Your task to perform on an android device: turn off priority inbox in the gmail app Image 0: 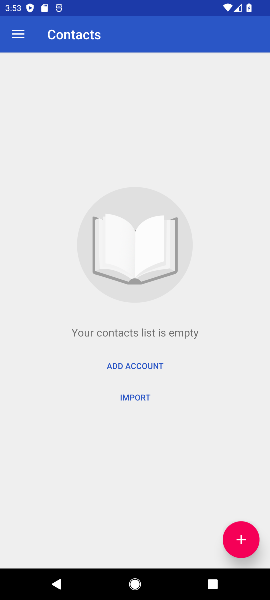
Step 0: press home button
Your task to perform on an android device: turn off priority inbox in the gmail app Image 1: 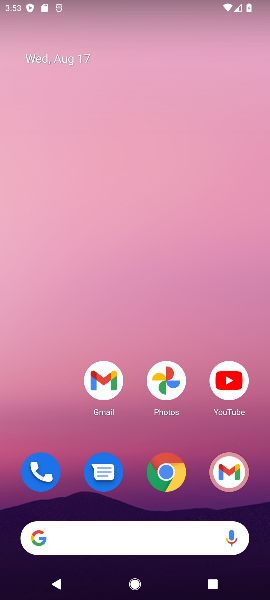
Step 1: click (231, 468)
Your task to perform on an android device: turn off priority inbox in the gmail app Image 2: 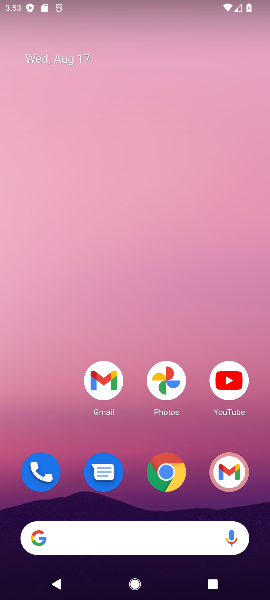
Step 2: click (106, 385)
Your task to perform on an android device: turn off priority inbox in the gmail app Image 3: 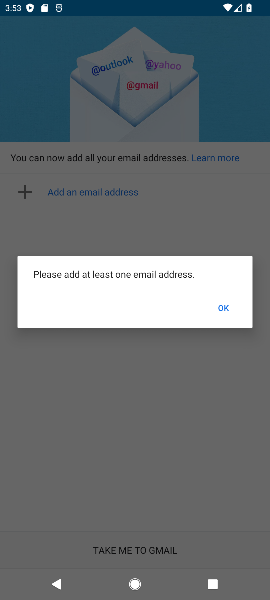
Step 3: click (230, 303)
Your task to perform on an android device: turn off priority inbox in the gmail app Image 4: 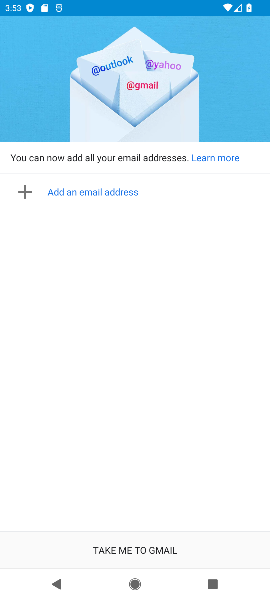
Step 4: click (147, 558)
Your task to perform on an android device: turn off priority inbox in the gmail app Image 5: 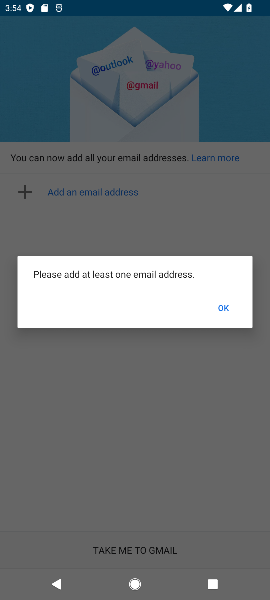
Step 5: task complete